Your task to perform on an android device: read, delete, or share a saved page in the chrome app Image 0: 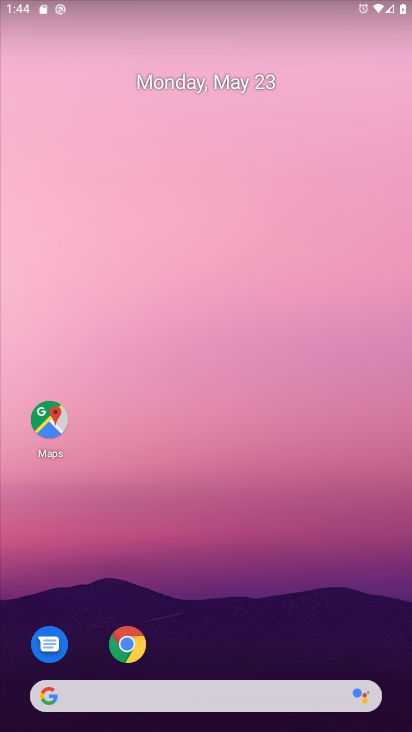
Step 0: click (133, 644)
Your task to perform on an android device: read, delete, or share a saved page in the chrome app Image 1: 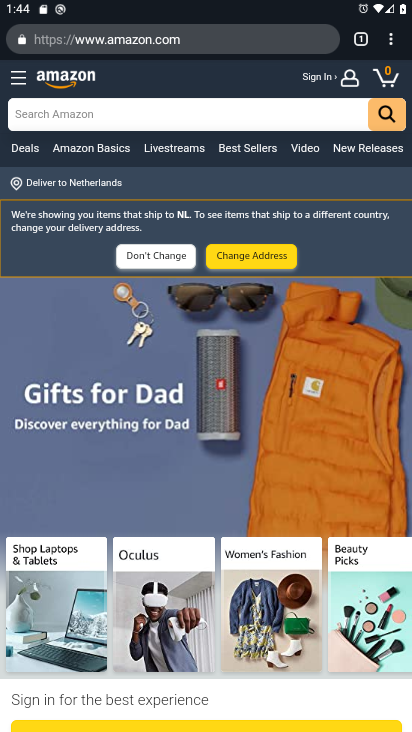
Step 1: click (394, 40)
Your task to perform on an android device: read, delete, or share a saved page in the chrome app Image 2: 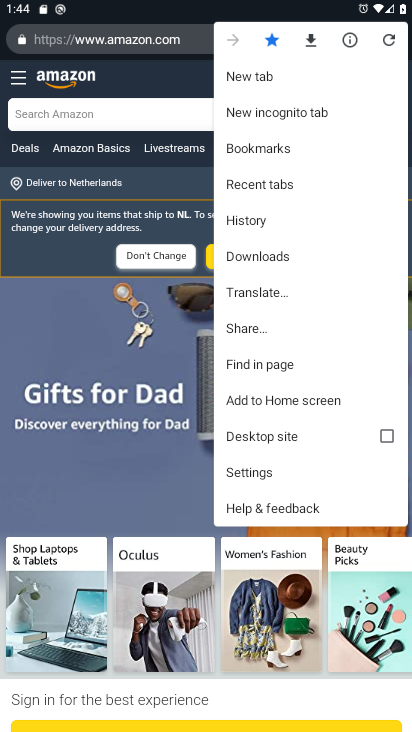
Step 2: click (279, 474)
Your task to perform on an android device: read, delete, or share a saved page in the chrome app Image 3: 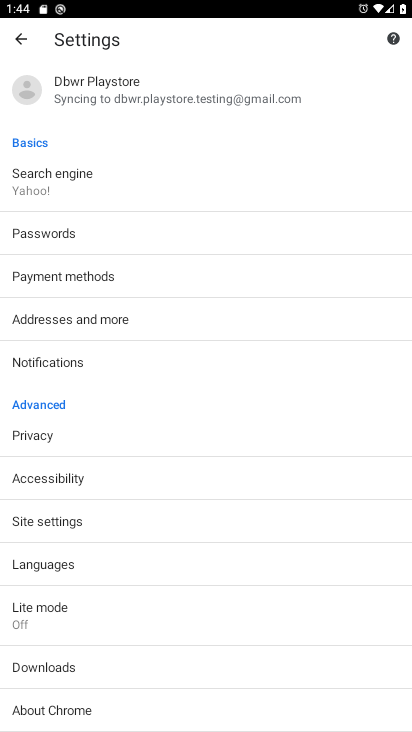
Step 3: task complete